Your task to perform on an android device: open sync settings in chrome Image 0: 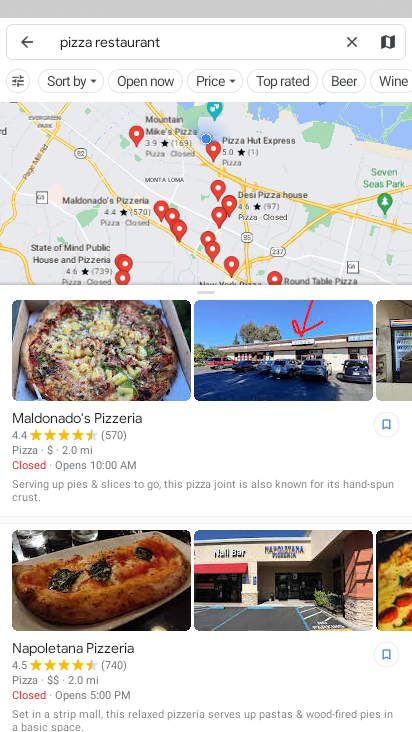
Step 0: press home button
Your task to perform on an android device: open sync settings in chrome Image 1: 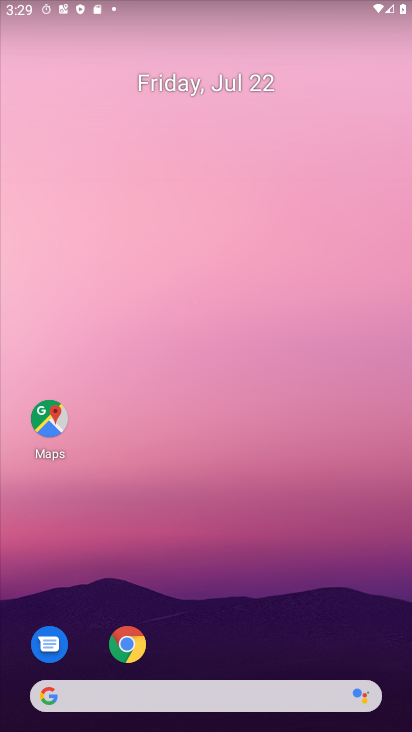
Step 1: press home button
Your task to perform on an android device: open sync settings in chrome Image 2: 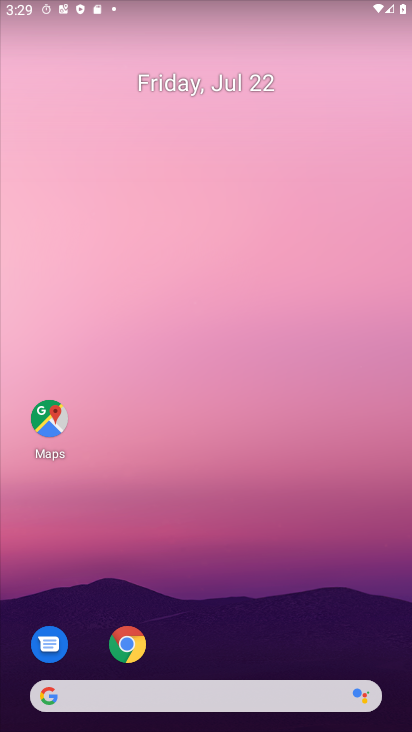
Step 2: drag from (234, 640) to (228, 32)
Your task to perform on an android device: open sync settings in chrome Image 3: 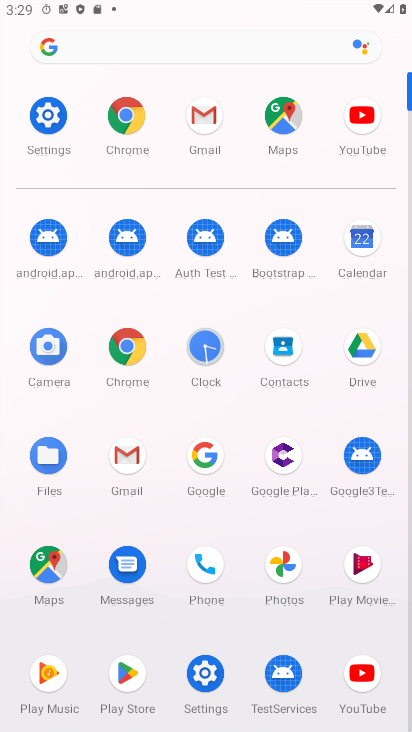
Step 3: click (123, 118)
Your task to perform on an android device: open sync settings in chrome Image 4: 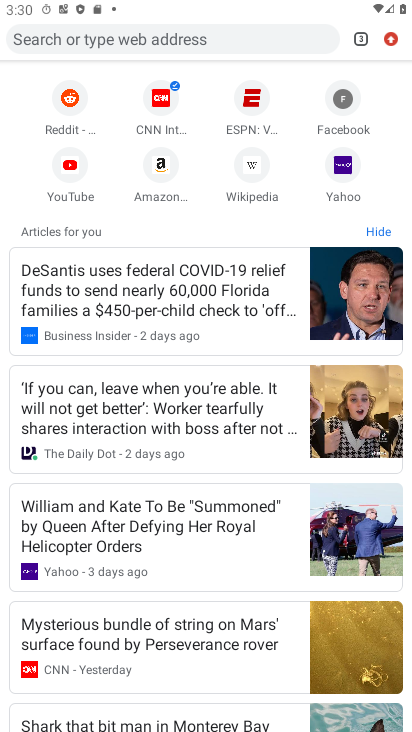
Step 4: drag from (389, 37) to (255, 388)
Your task to perform on an android device: open sync settings in chrome Image 5: 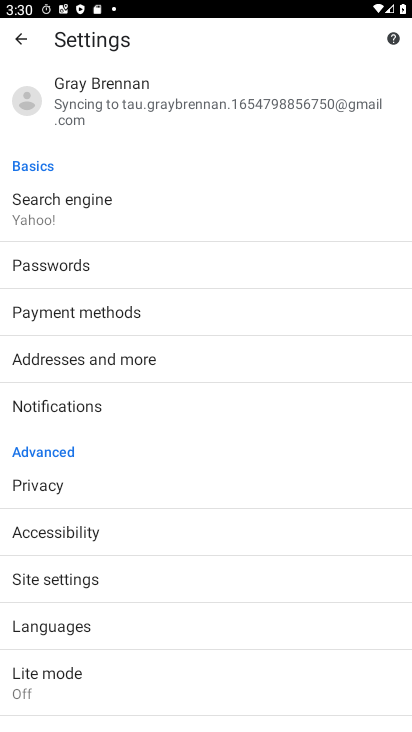
Step 5: click (138, 98)
Your task to perform on an android device: open sync settings in chrome Image 6: 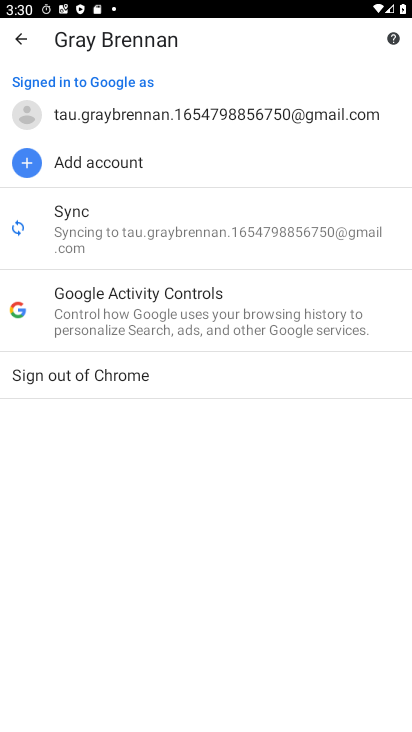
Step 6: click (86, 226)
Your task to perform on an android device: open sync settings in chrome Image 7: 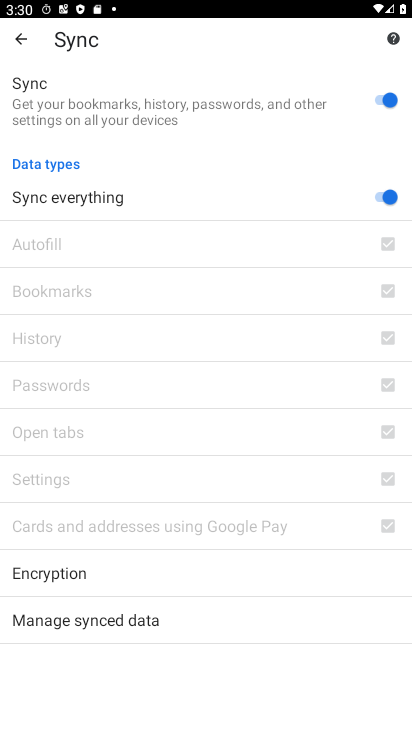
Step 7: task complete